Your task to perform on an android device: Search for vegetarian restaurants on Maps Image 0: 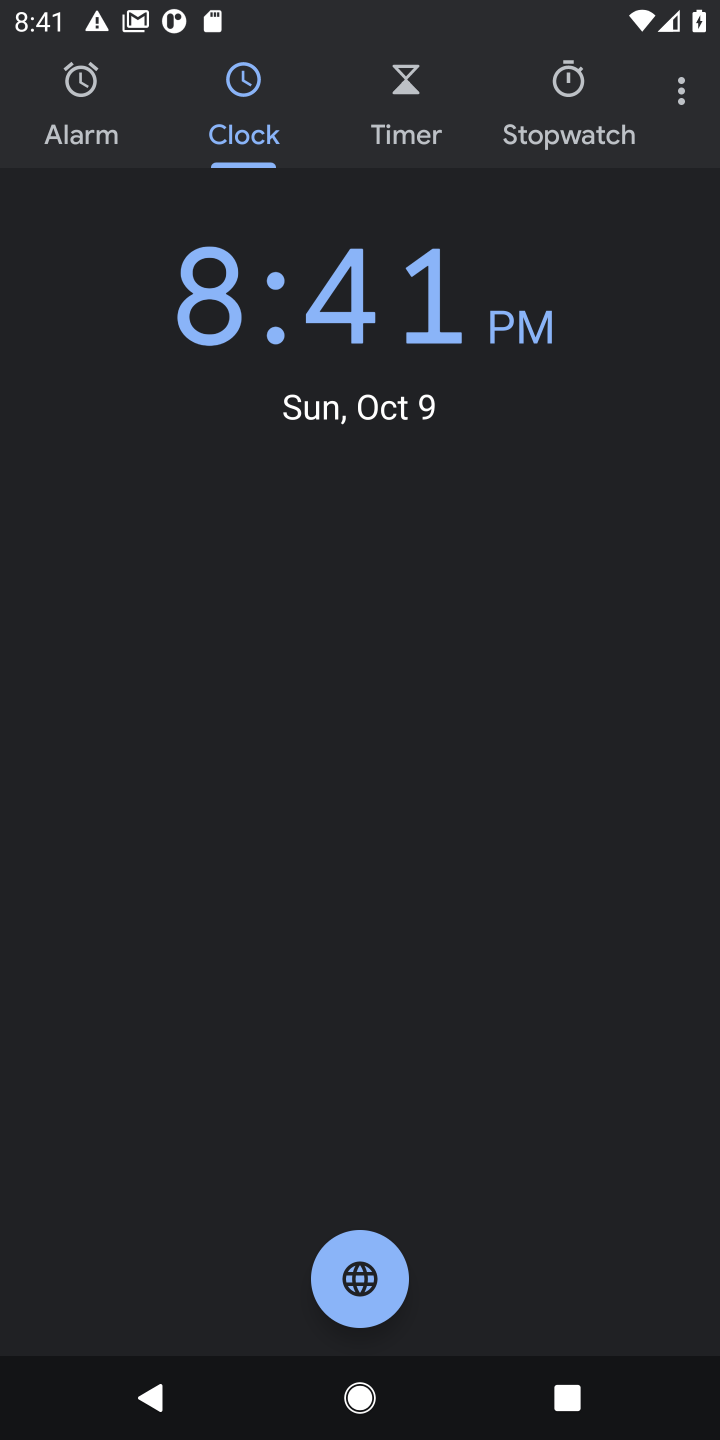
Step 0: press home button
Your task to perform on an android device: Search for vegetarian restaurants on Maps Image 1: 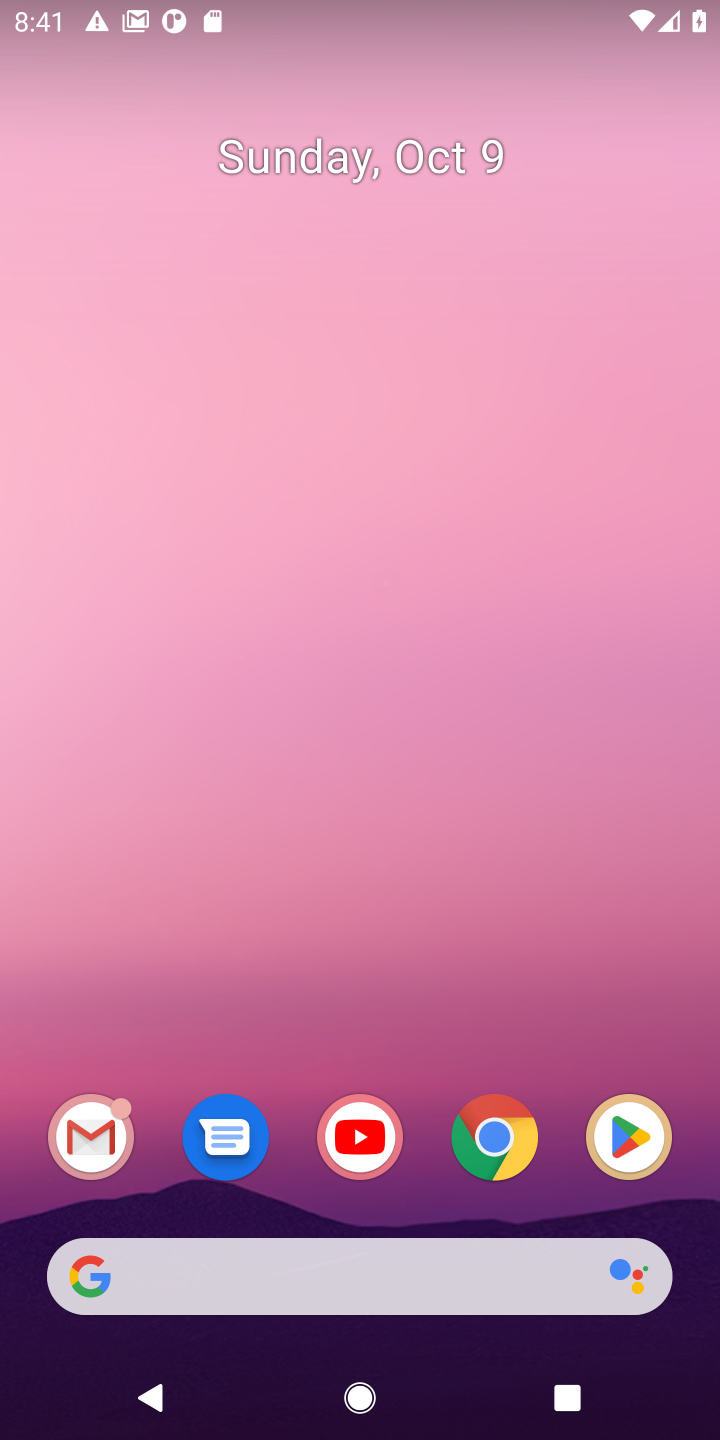
Step 1: click (492, 1128)
Your task to perform on an android device: Search for vegetarian restaurants on Maps Image 2: 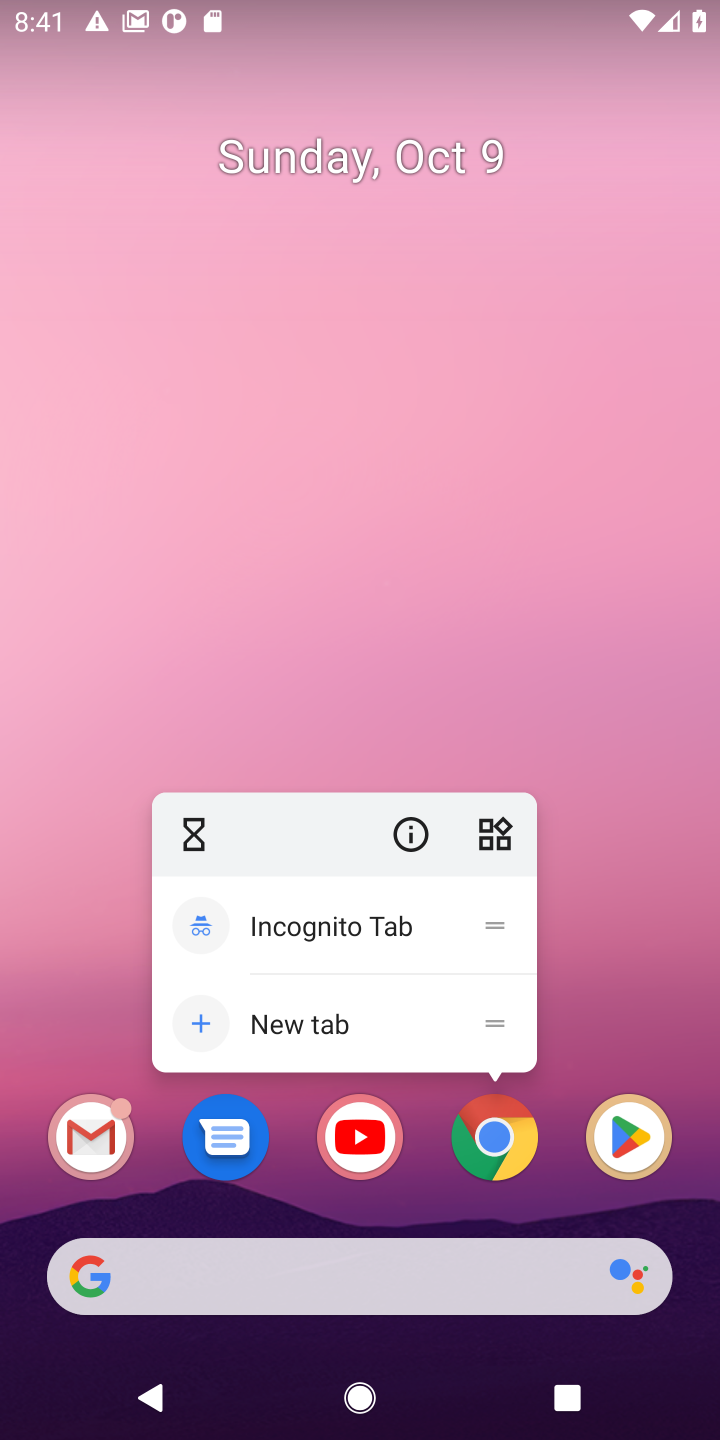
Step 2: click (492, 1128)
Your task to perform on an android device: Search for vegetarian restaurants on Maps Image 3: 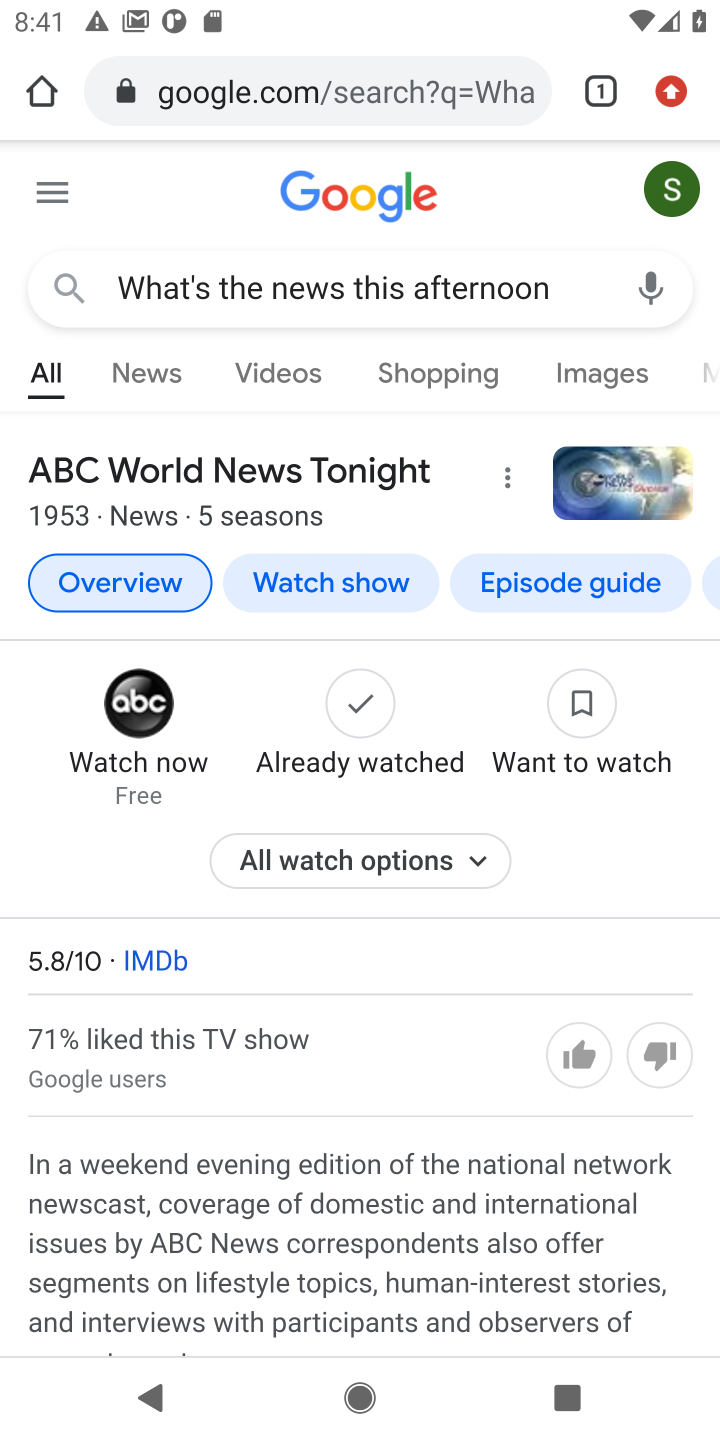
Step 3: click (252, 75)
Your task to perform on an android device: Search for vegetarian restaurants on Maps Image 4: 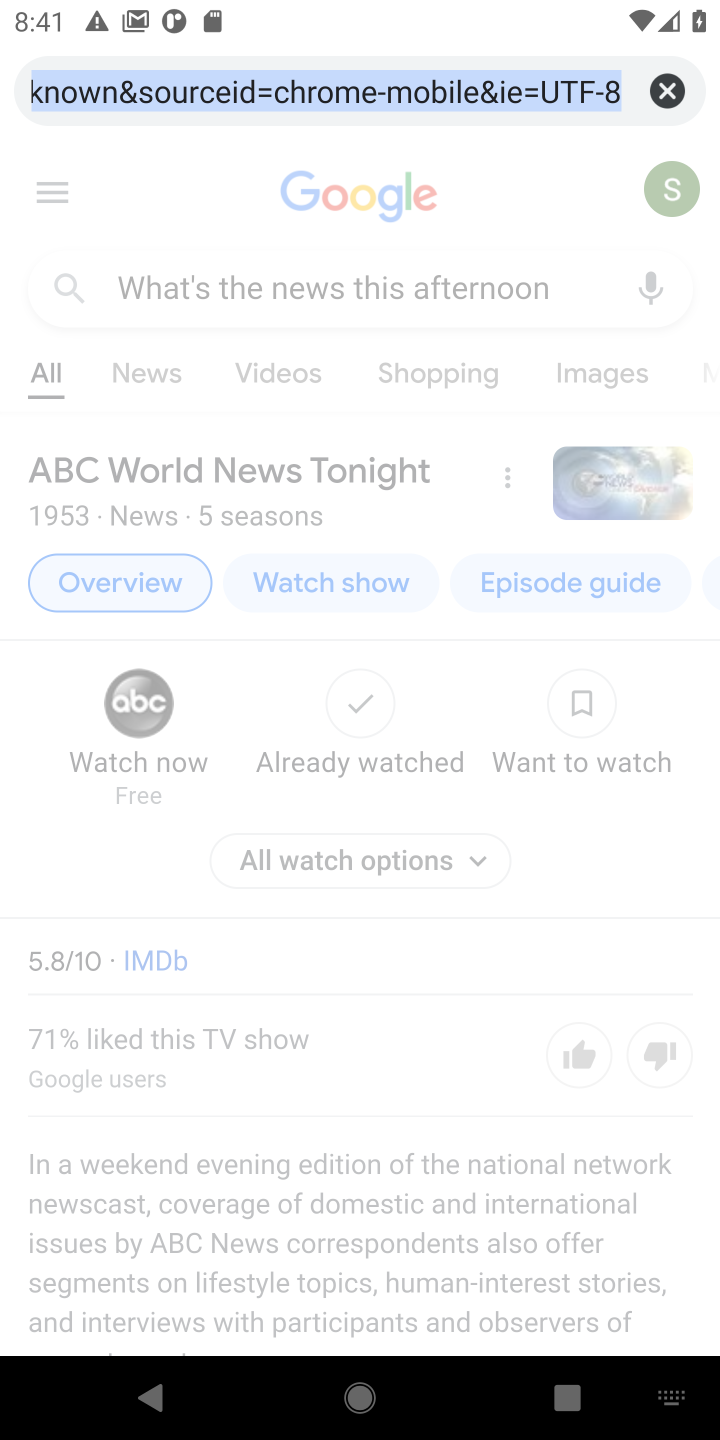
Step 4: click (675, 90)
Your task to perform on an android device: Search for vegetarian restaurants on Maps Image 5: 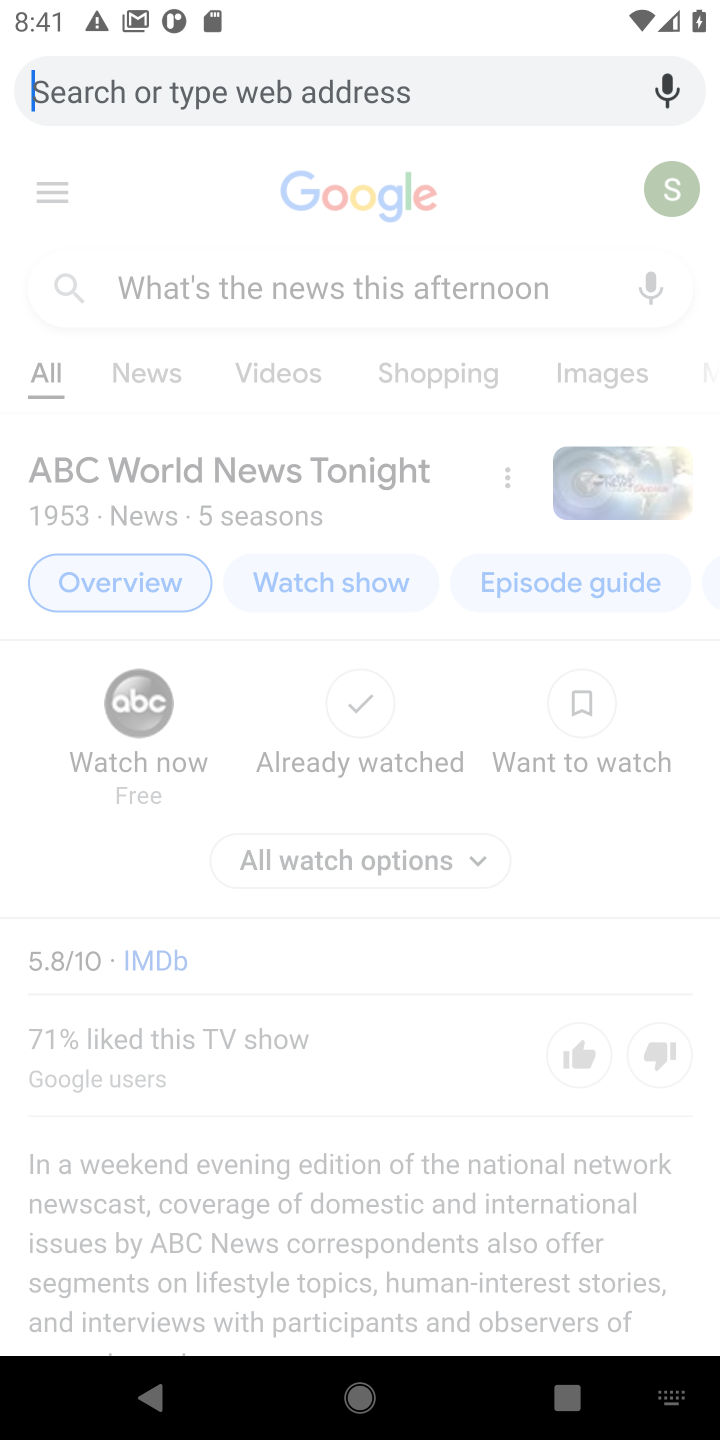
Step 5: type "vegetarian restaurants"
Your task to perform on an android device: Search for vegetarian restaurants on Maps Image 6: 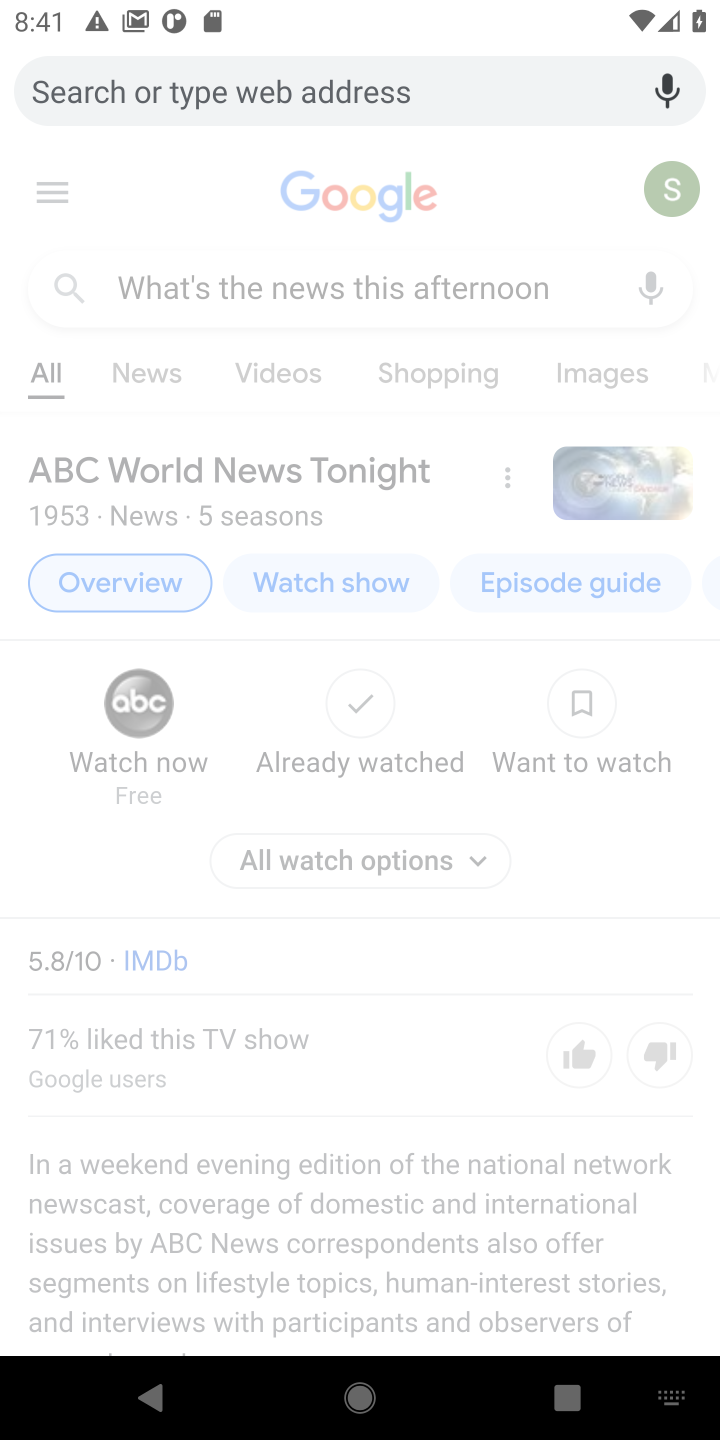
Step 6: click (200, 1102)
Your task to perform on an android device: Search for vegetarian restaurants on Maps Image 7: 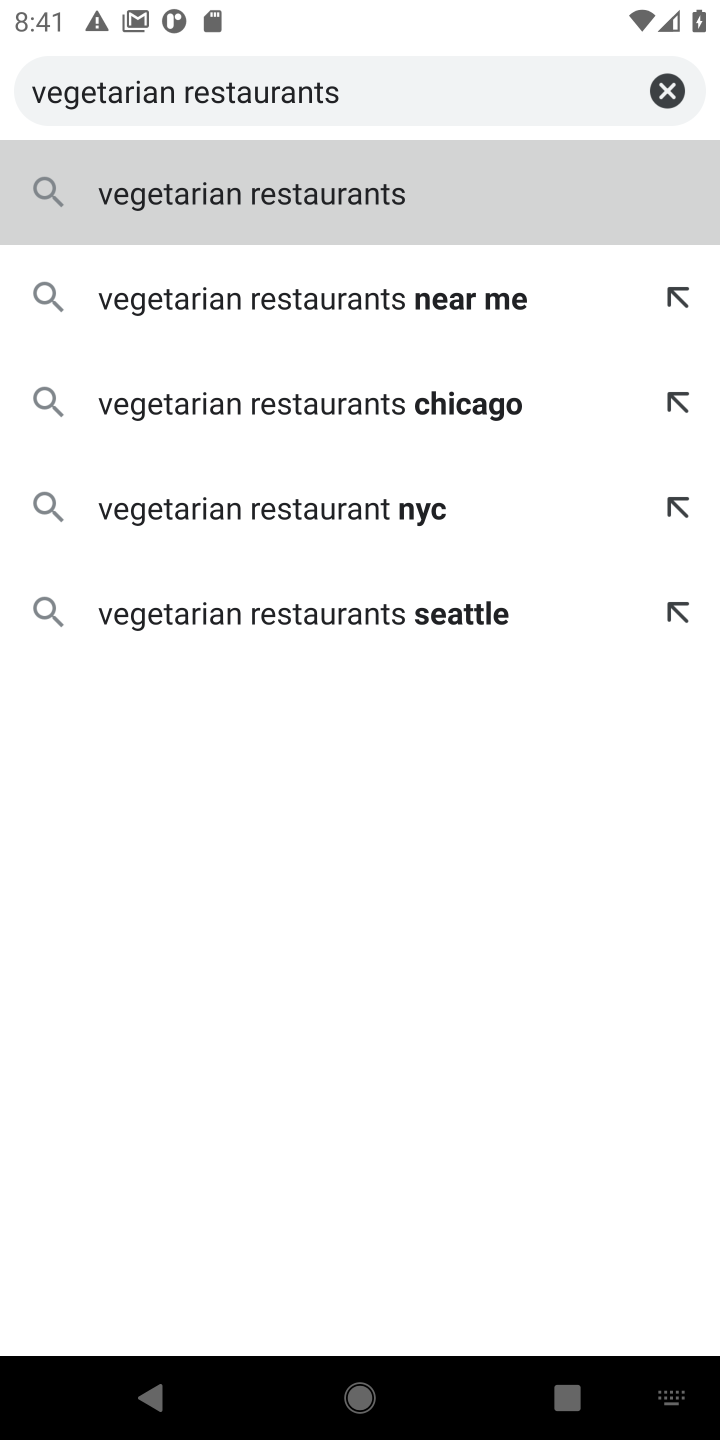
Step 7: click (240, 198)
Your task to perform on an android device: Search for vegetarian restaurants on Maps Image 8: 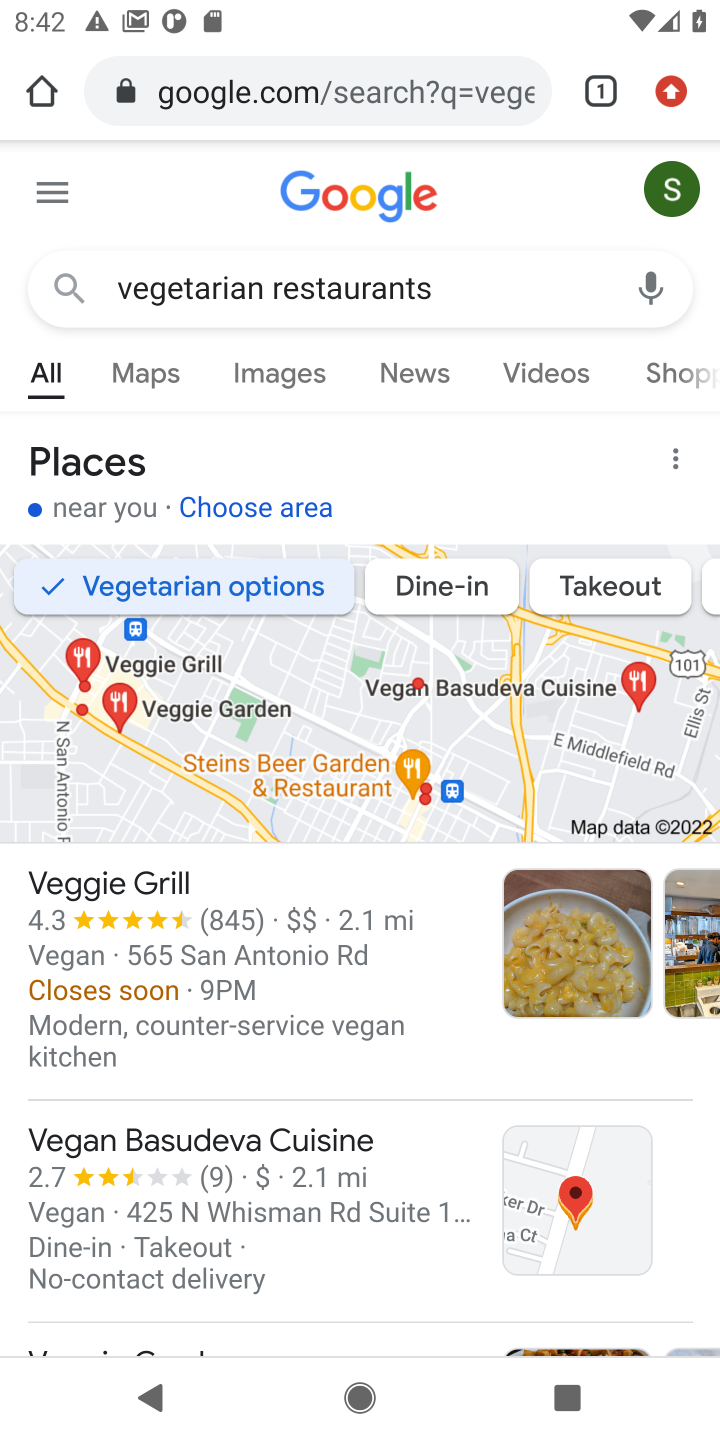
Step 8: task complete